Your task to perform on an android device: turn on airplane mode Image 0: 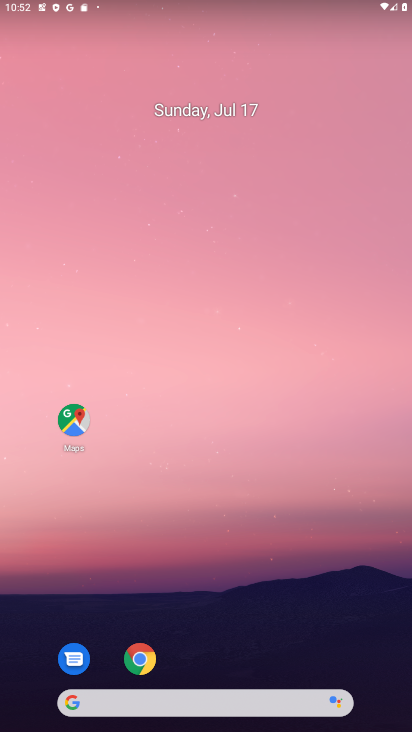
Step 0: drag from (170, 9) to (195, 579)
Your task to perform on an android device: turn on airplane mode Image 1: 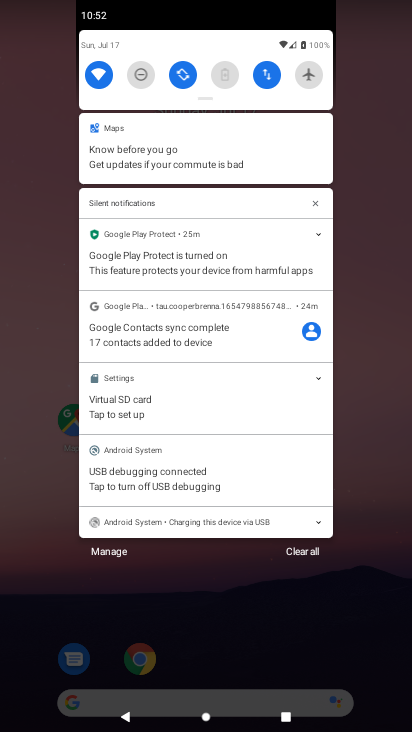
Step 1: click (306, 77)
Your task to perform on an android device: turn on airplane mode Image 2: 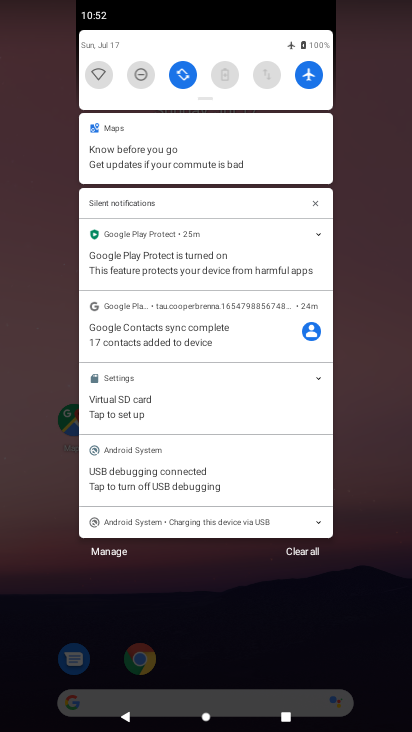
Step 2: task complete